Your task to perform on an android device: toggle data saver in the chrome app Image 0: 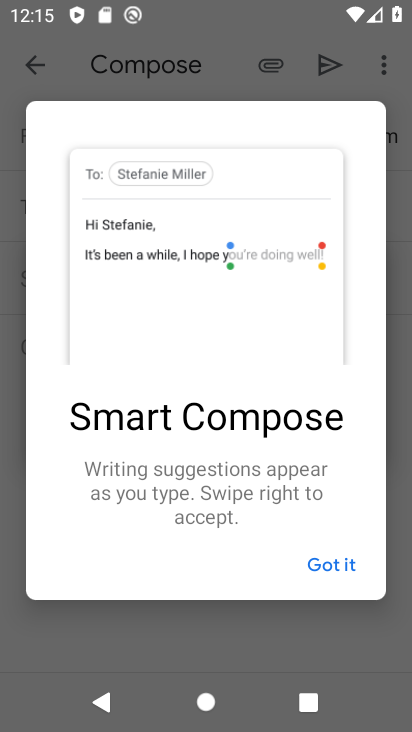
Step 0: press home button
Your task to perform on an android device: toggle data saver in the chrome app Image 1: 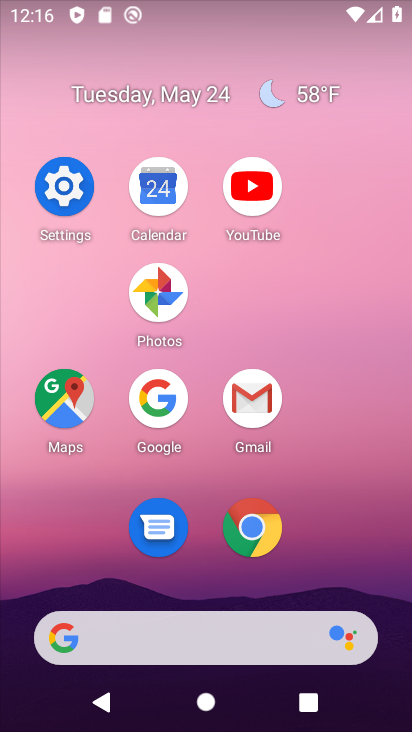
Step 1: click (275, 529)
Your task to perform on an android device: toggle data saver in the chrome app Image 2: 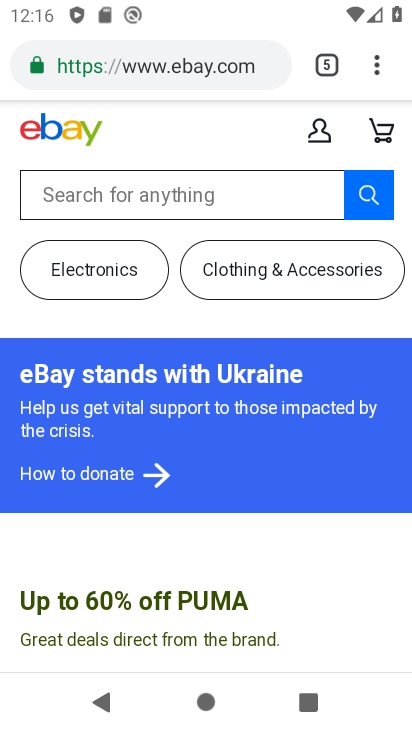
Step 2: click (383, 58)
Your task to perform on an android device: toggle data saver in the chrome app Image 3: 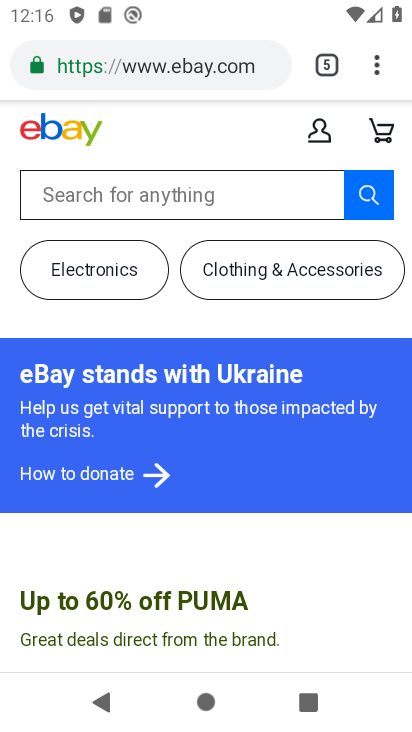
Step 3: click (372, 77)
Your task to perform on an android device: toggle data saver in the chrome app Image 4: 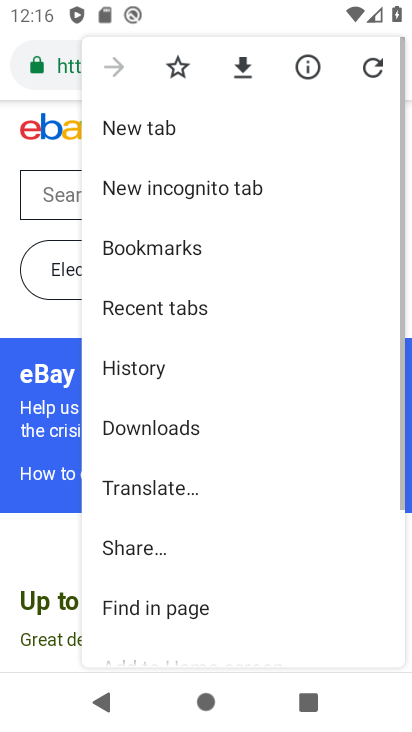
Step 4: drag from (264, 505) to (276, 94)
Your task to perform on an android device: toggle data saver in the chrome app Image 5: 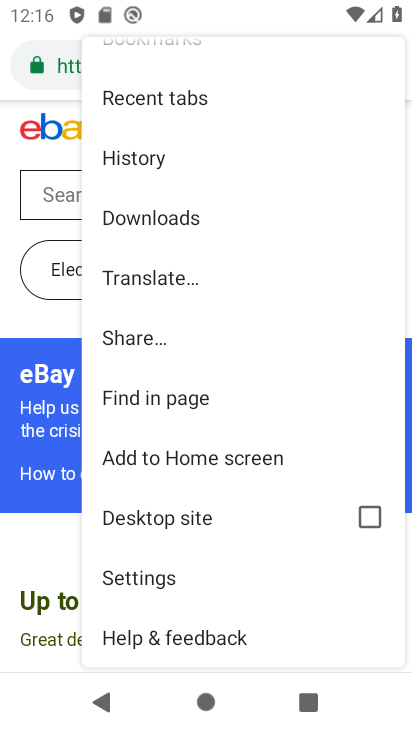
Step 5: click (241, 574)
Your task to perform on an android device: toggle data saver in the chrome app Image 6: 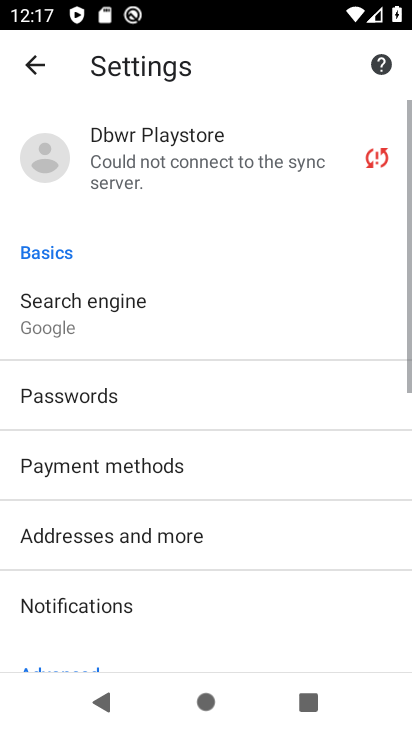
Step 6: drag from (205, 382) to (213, 98)
Your task to perform on an android device: toggle data saver in the chrome app Image 7: 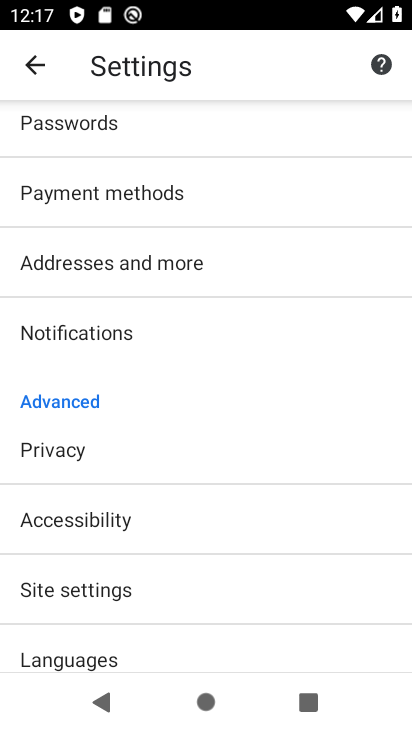
Step 7: drag from (227, 570) to (227, 185)
Your task to perform on an android device: toggle data saver in the chrome app Image 8: 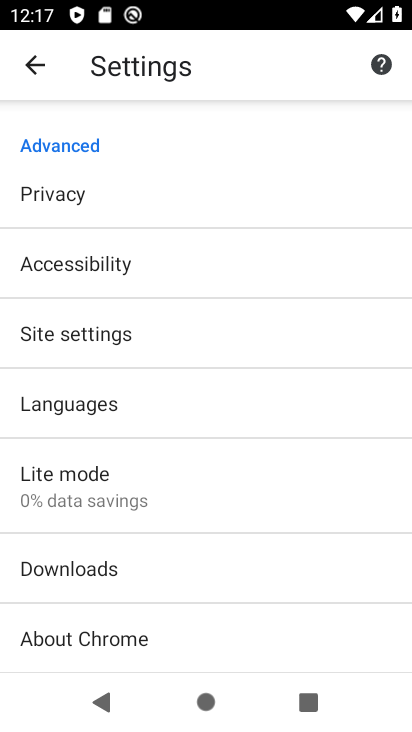
Step 8: click (192, 507)
Your task to perform on an android device: toggle data saver in the chrome app Image 9: 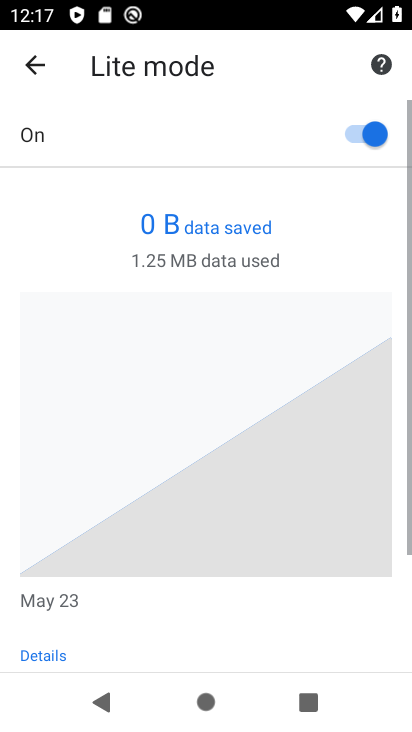
Step 9: click (349, 135)
Your task to perform on an android device: toggle data saver in the chrome app Image 10: 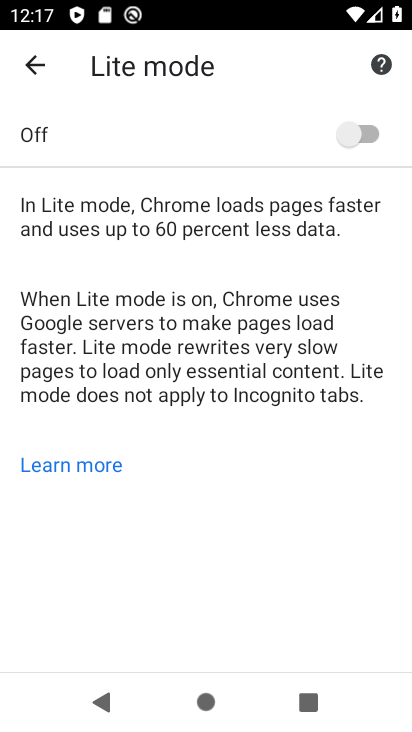
Step 10: task complete